Your task to perform on an android device: Open the stopwatch Image 0: 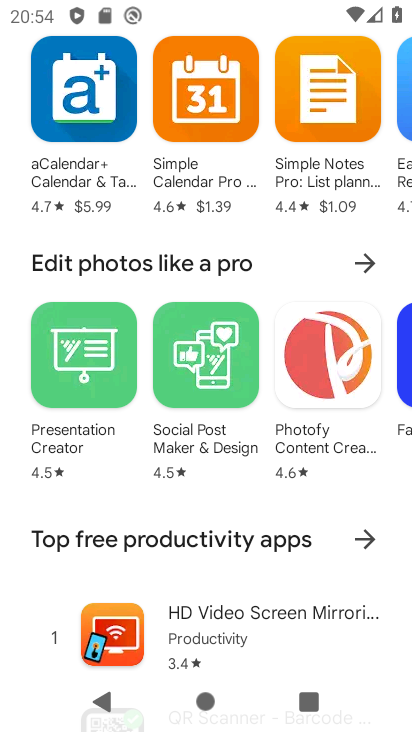
Step 0: press home button
Your task to perform on an android device: Open the stopwatch Image 1: 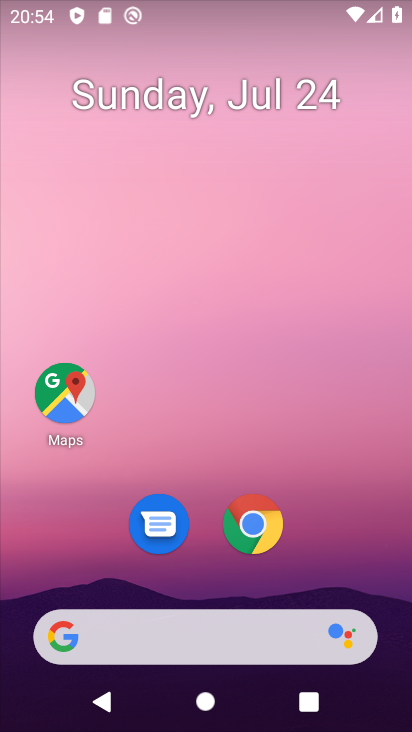
Step 1: drag from (214, 638) to (262, 76)
Your task to perform on an android device: Open the stopwatch Image 2: 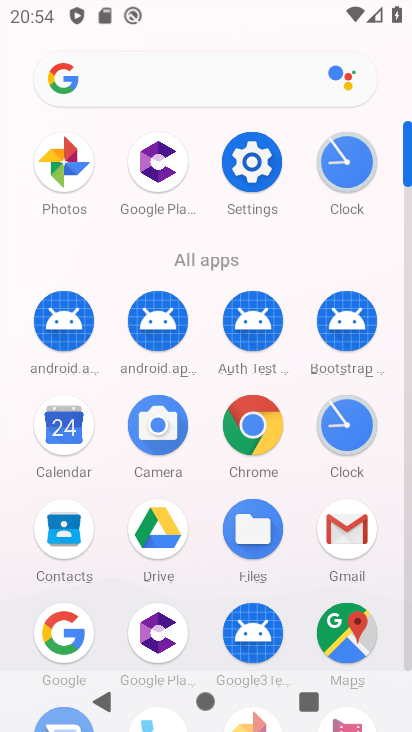
Step 2: click (343, 422)
Your task to perform on an android device: Open the stopwatch Image 3: 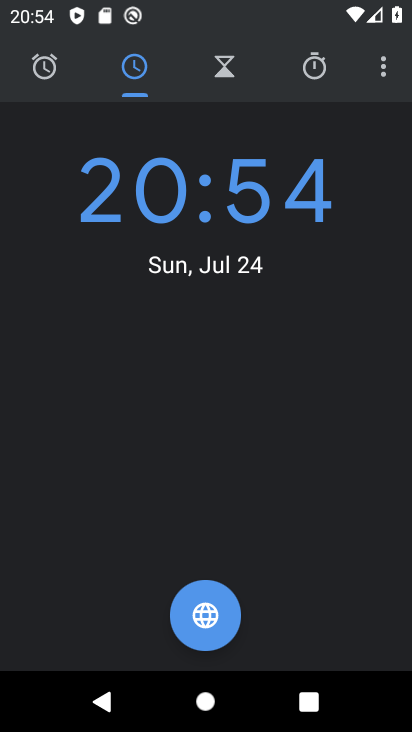
Step 3: click (310, 73)
Your task to perform on an android device: Open the stopwatch Image 4: 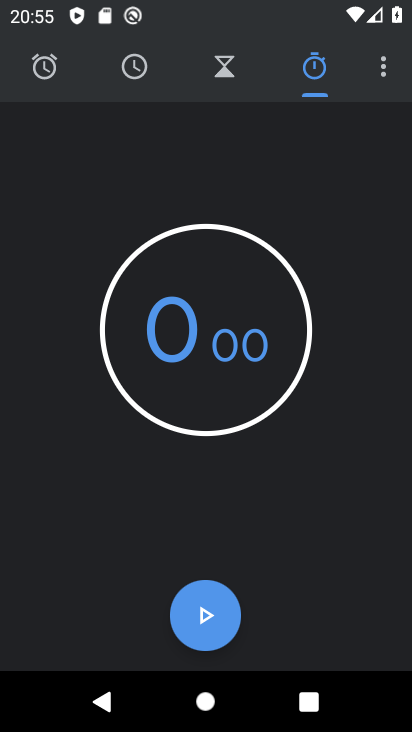
Step 4: task complete